Your task to perform on an android device: change the clock display to digital Image 0: 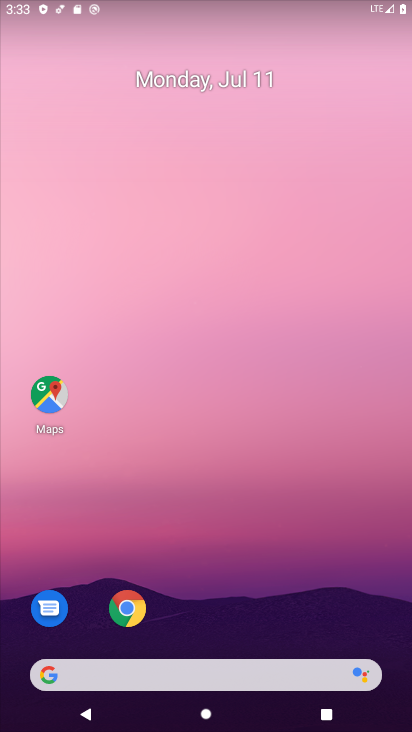
Step 0: drag from (171, 612) to (158, 0)
Your task to perform on an android device: change the clock display to digital Image 1: 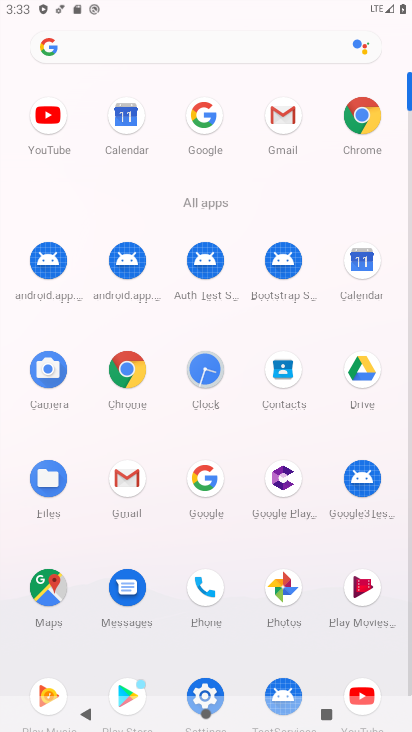
Step 1: click (198, 386)
Your task to perform on an android device: change the clock display to digital Image 2: 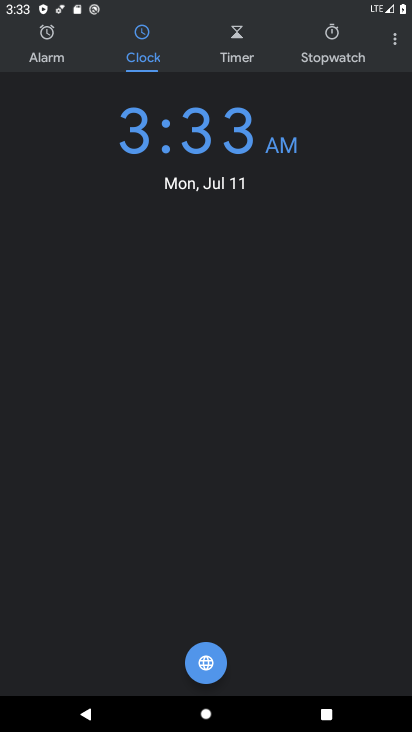
Step 2: click (397, 48)
Your task to perform on an android device: change the clock display to digital Image 3: 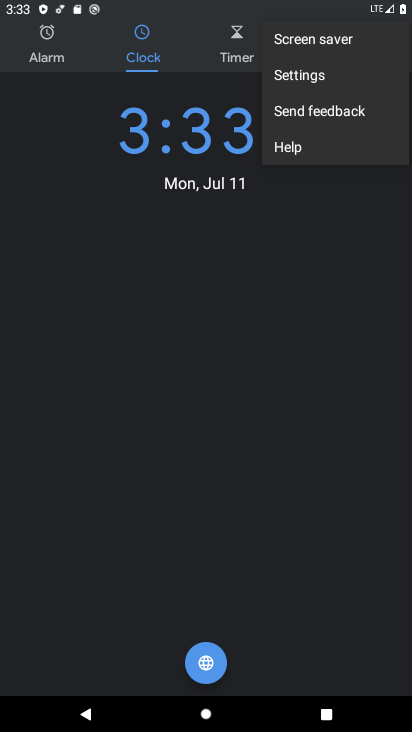
Step 3: click (285, 86)
Your task to perform on an android device: change the clock display to digital Image 4: 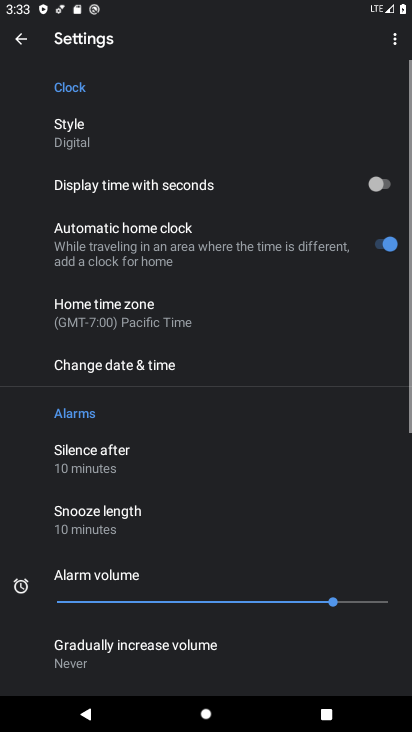
Step 4: click (70, 127)
Your task to perform on an android device: change the clock display to digital Image 5: 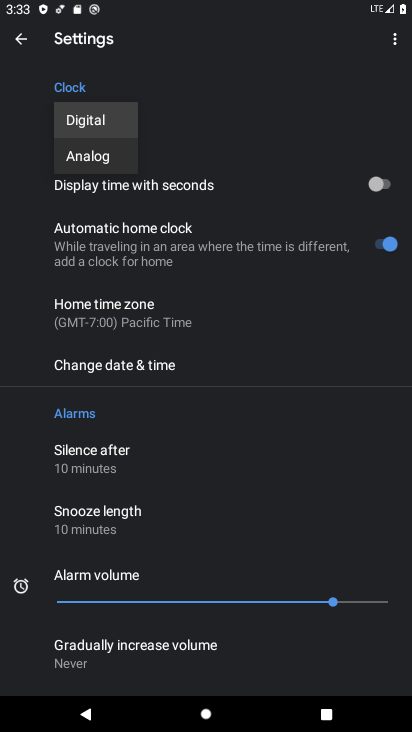
Step 5: click (76, 124)
Your task to perform on an android device: change the clock display to digital Image 6: 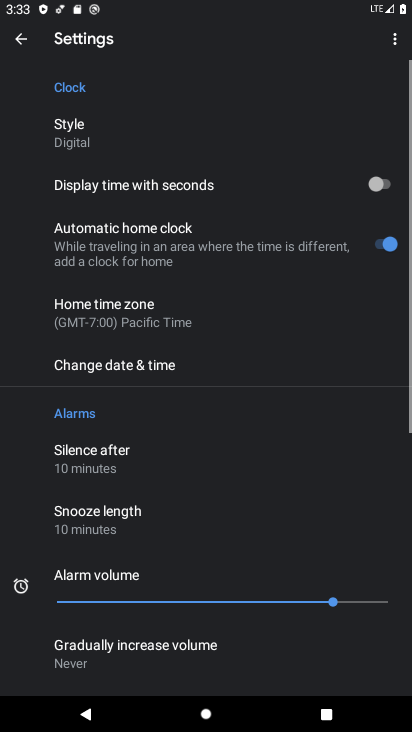
Step 6: task complete